Your task to perform on an android device: Show me popular videos on Youtube Image 0: 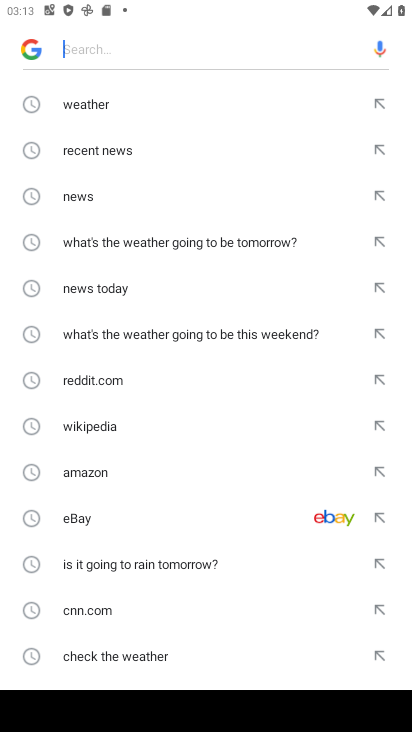
Step 0: press home button
Your task to perform on an android device: Show me popular videos on Youtube Image 1: 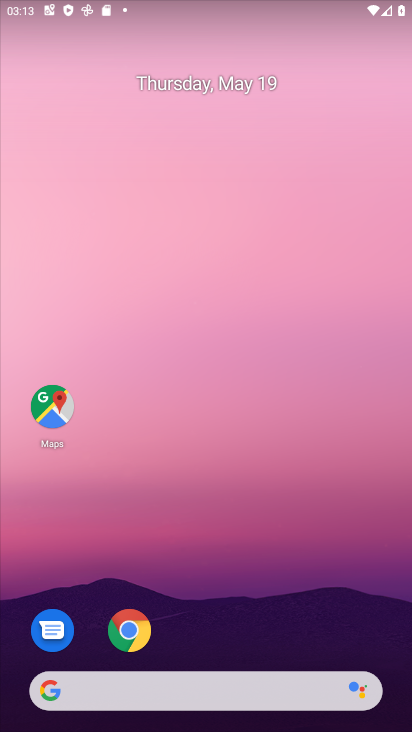
Step 1: drag from (388, 641) to (259, 106)
Your task to perform on an android device: Show me popular videos on Youtube Image 2: 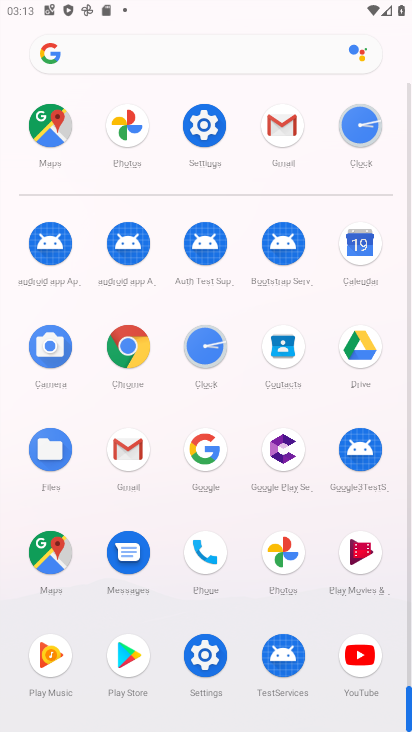
Step 2: click (360, 654)
Your task to perform on an android device: Show me popular videos on Youtube Image 3: 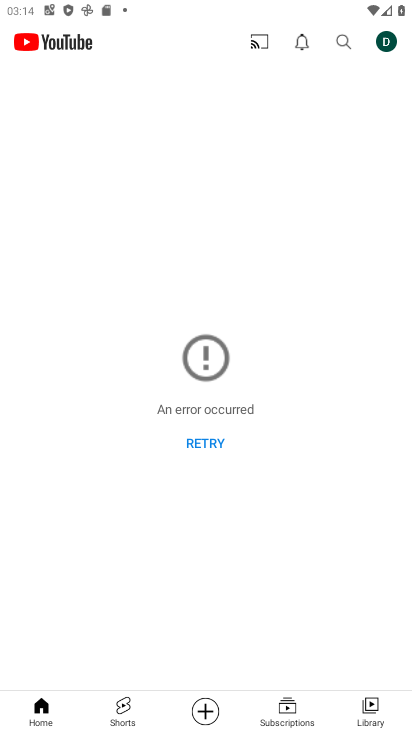
Step 3: click (199, 436)
Your task to perform on an android device: Show me popular videos on Youtube Image 4: 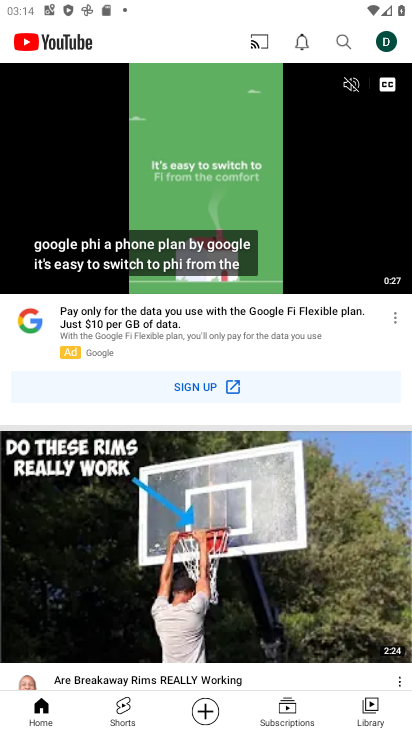
Step 4: task complete